Your task to perform on an android device: turn on data saver in the chrome app Image 0: 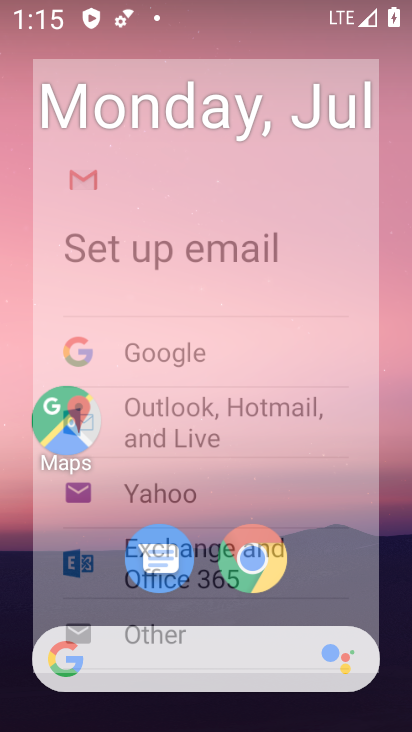
Step 0: press home button
Your task to perform on an android device: turn on data saver in the chrome app Image 1: 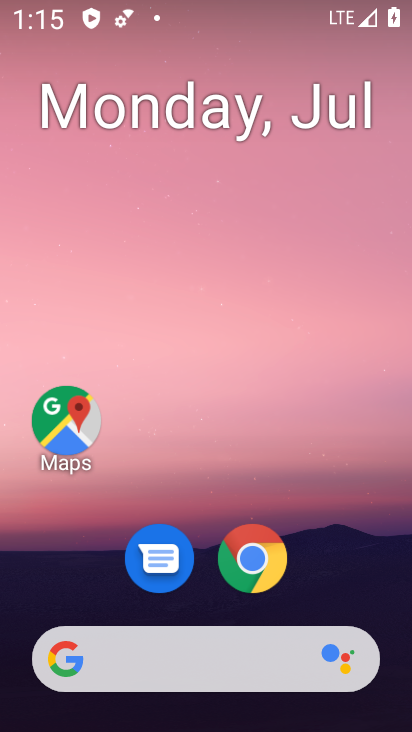
Step 1: drag from (338, 599) to (341, 90)
Your task to perform on an android device: turn on data saver in the chrome app Image 2: 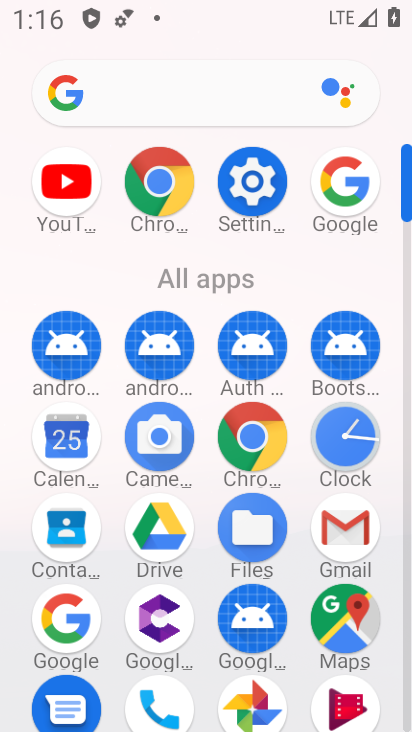
Step 2: click (273, 454)
Your task to perform on an android device: turn on data saver in the chrome app Image 3: 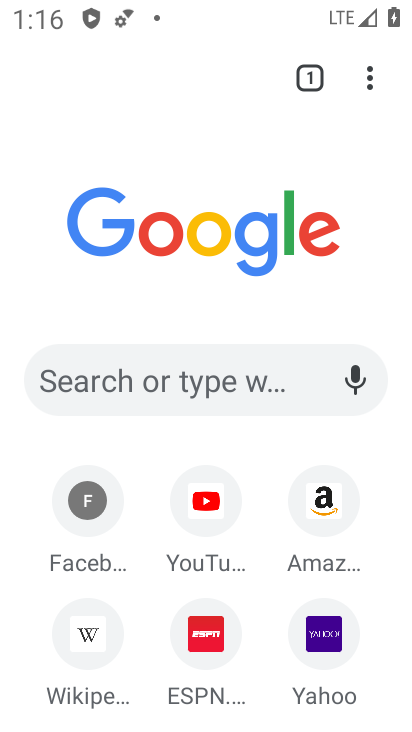
Step 3: click (366, 94)
Your task to perform on an android device: turn on data saver in the chrome app Image 4: 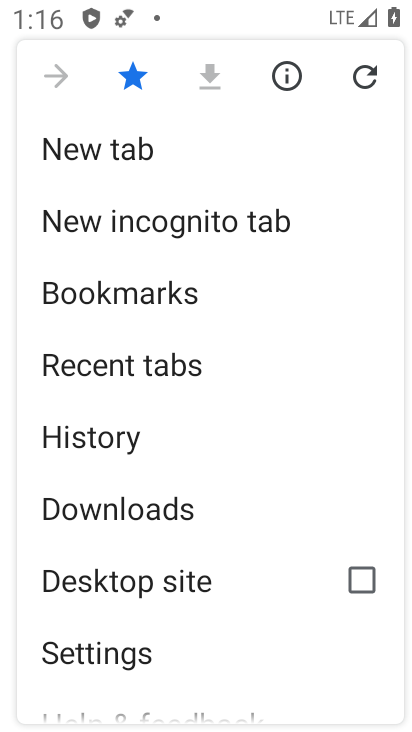
Step 4: drag from (281, 416) to (284, 300)
Your task to perform on an android device: turn on data saver in the chrome app Image 5: 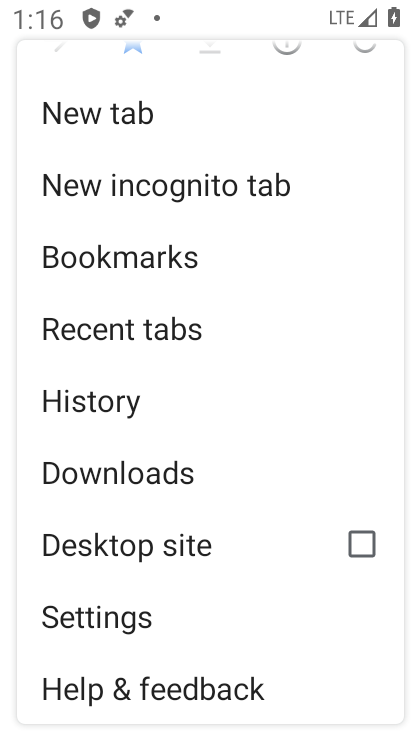
Step 5: drag from (276, 424) to (273, 314)
Your task to perform on an android device: turn on data saver in the chrome app Image 6: 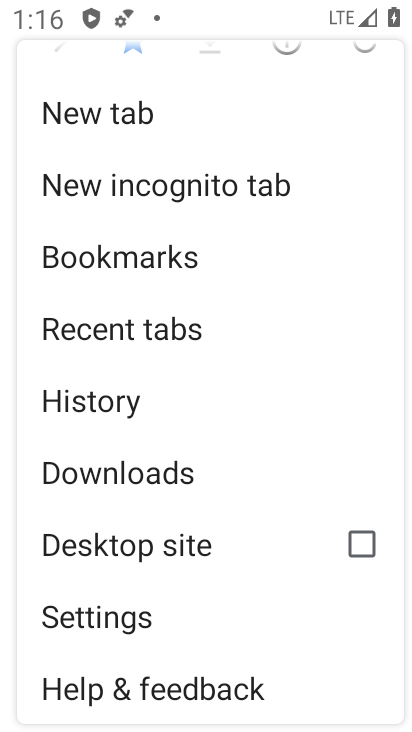
Step 6: drag from (247, 555) to (294, 337)
Your task to perform on an android device: turn on data saver in the chrome app Image 7: 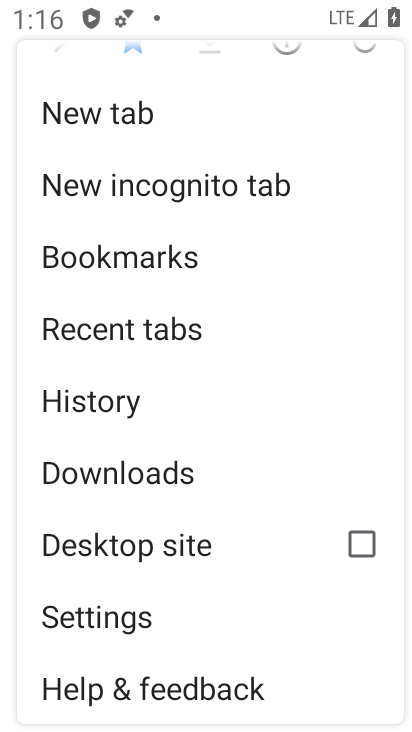
Step 7: drag from (304, 550) to (314, 385)
Your task to perform on an android device: turn on data saver in the chrome app Image 8: 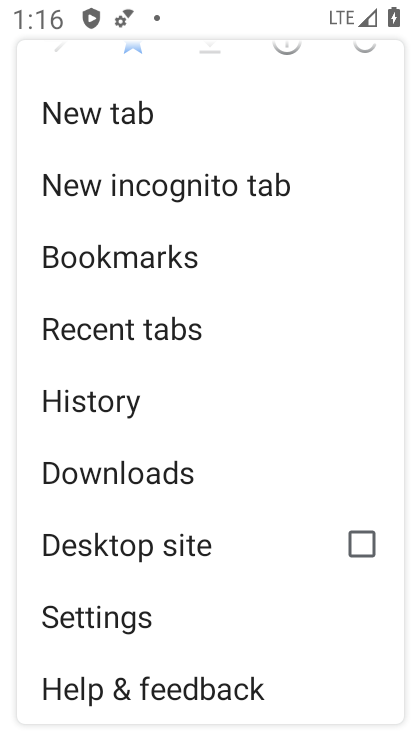
Step 8: click (205, 609)
Your task to perform on an android device: turn on data saver in the chrome app Image 9: 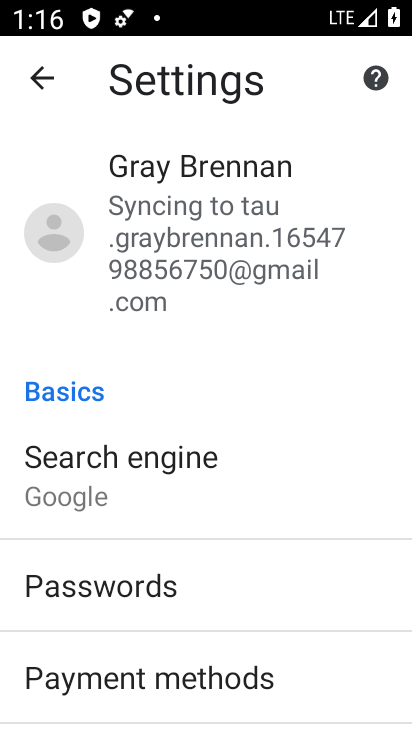
Step 9: drag from (306, 510) to (313, 361)
Your task to perform on an android device: turn on data saver in the chrome app Image 10: 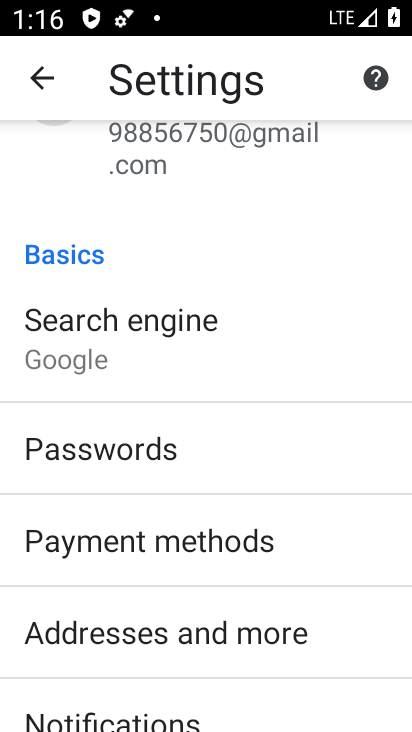
Step 10: drag from (328, 588) to (345, 445)
Your task to perform on an android device: turn on data saver in the chrome app Image 11: 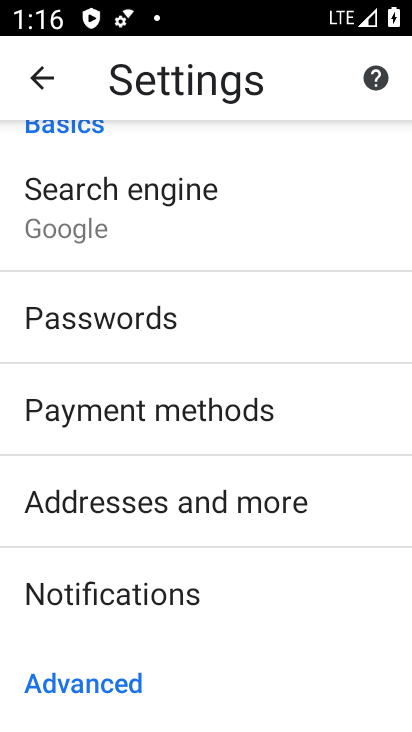
Step 11: drag from (309, 623) to (311, 458)
Your task to perform on an android device: turn on data saver in the chrome app Image 12: 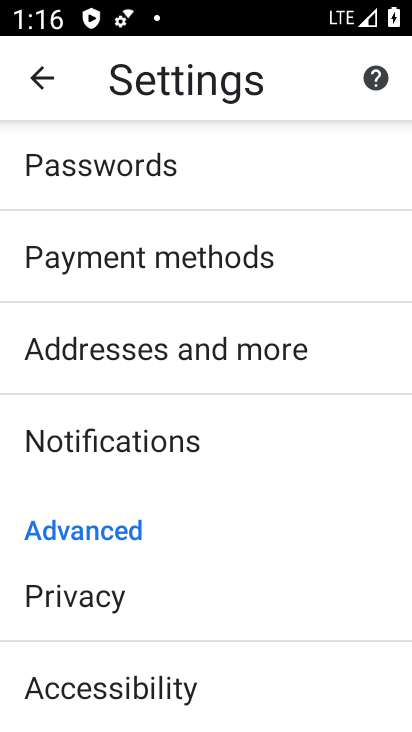
Step 12: drag from (306, 597) to (303, 446)
Your task to perform on an android device: turn on data saver in the chrome app Image 13: 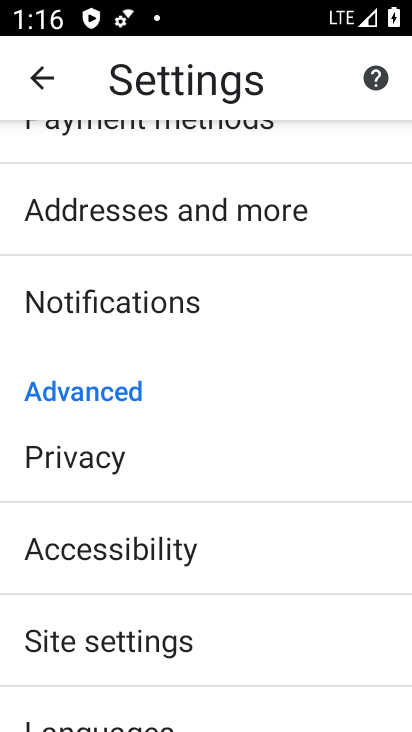
Step 13: drag from (312, 581) to (314, 439)
Your task to perform on an android device: turn on data saver in the chrome app Image 14: 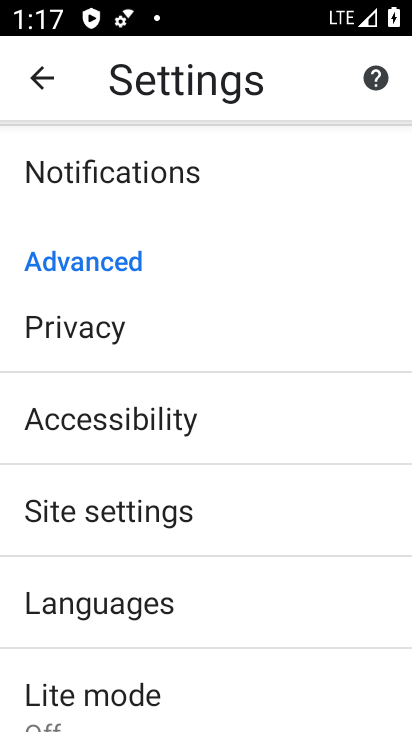
Step 14: drag from (319, 577) to (322, 401)
Your task to perform on an android device: turn on data saver in the chrome app Image 15: 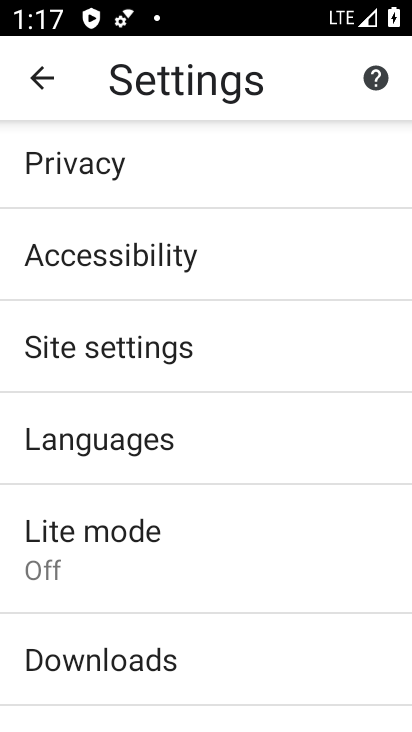
Step 15: drag from (282, 597) to (286, 457)
Your task to perform on an android device: turn on data saver in the chrome app Image 16: 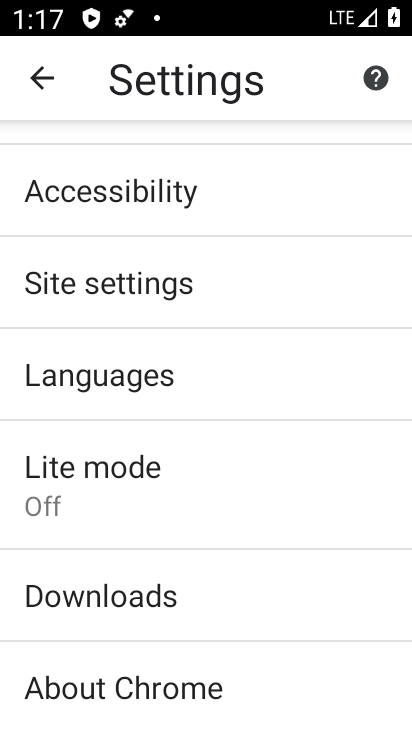
Step 16: click (217, 488)
Your task to perform on an android device: turn on data saver in the chrome app Image 17: 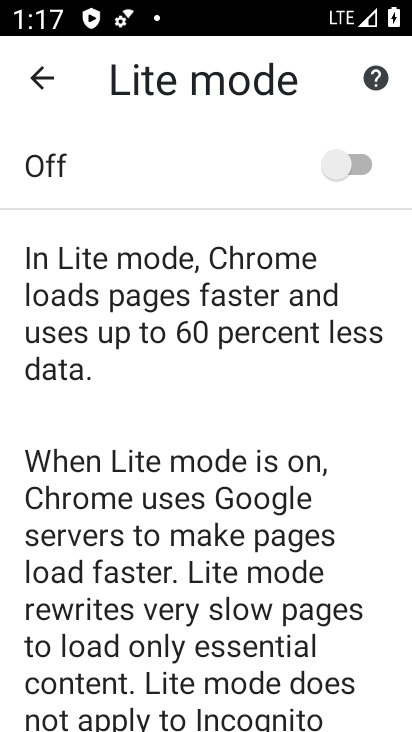
Step 17: drag from (234, 585) to (237, 451)
Your task to perform on an android device: turn on data saver in the chrome app Image 18: 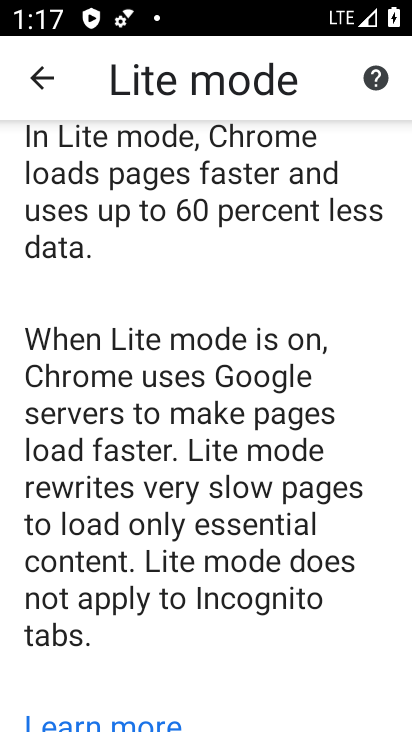
Step 18: drag from (301, 240) to (284, 486)
Your task to perform on an android device: turn on data saver in the chrome app Image 19: 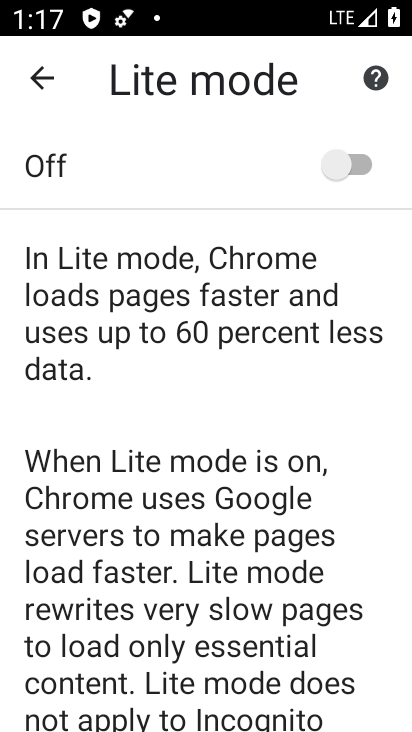
Step 19: drag from (267, 287) to (273, 486)
Your task to perform on an android device: turn on data saver in the chrome app Image 20: 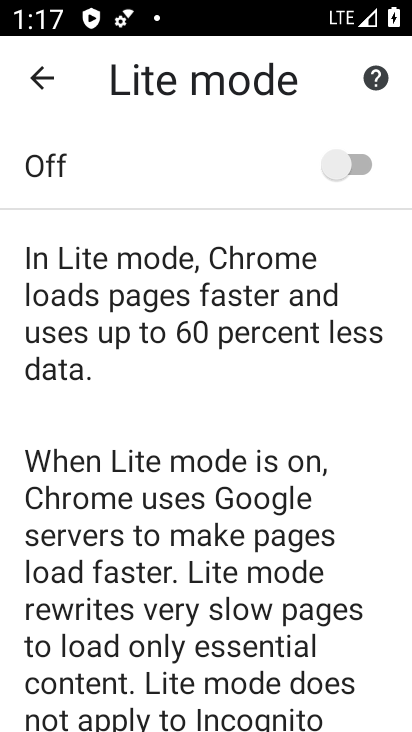
Step 20: click (330, 169)
Your task to perform on an android device: turn on data saver in the chrome app Image 21: 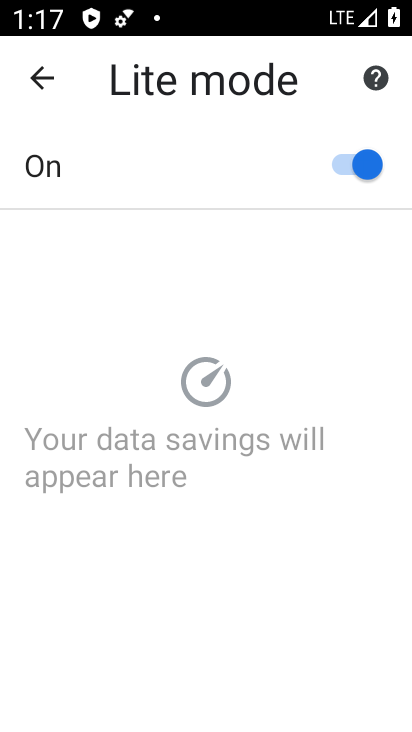
Step 21: task complete